Your task to perform on an android device: Open the phone app and click the voicemail tab. Image 0: 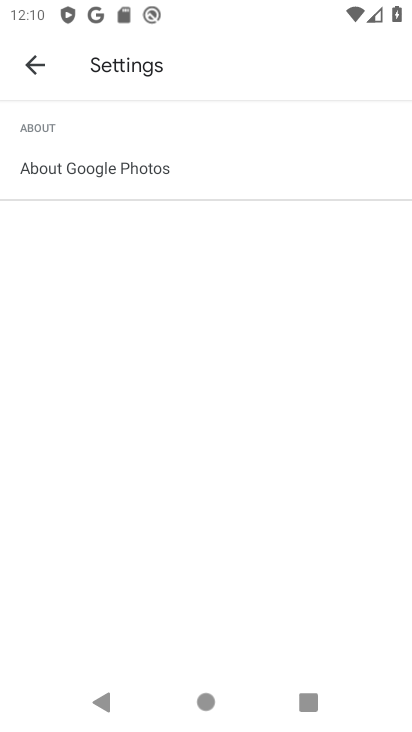
Step 0: click (31, 67)
Your task to perform on an android device: Open the phone app and click the voicemail tab. Image 1: 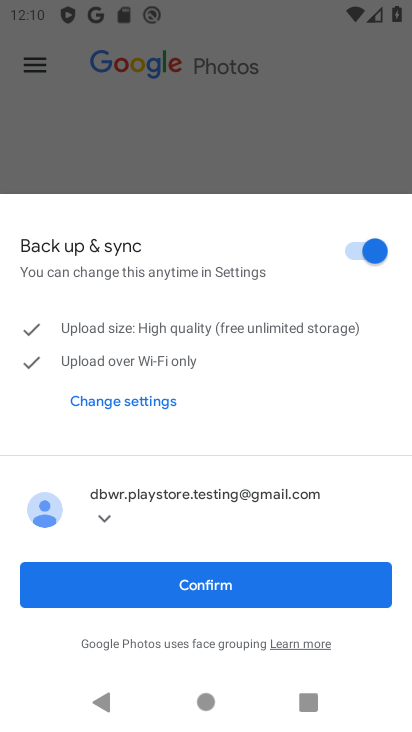
Step 1: press back button
Your task to perform on an android device: Open the phone app and click the voicemail tab. Image 2: 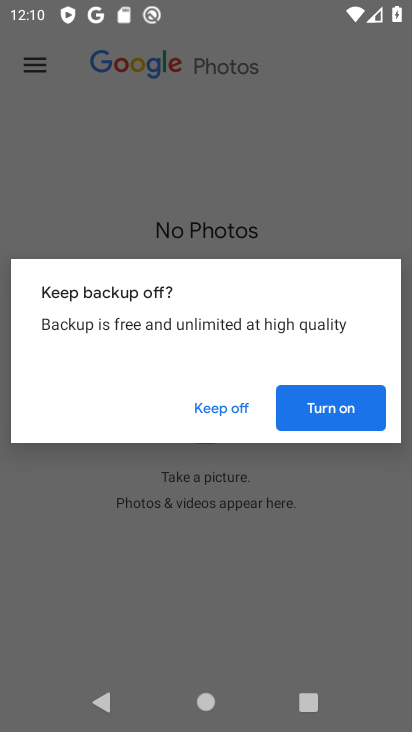
Step 2: click (199, 412)
Your task to perform on an android device: Open the phone app and click the voicemail tab. Image 3: 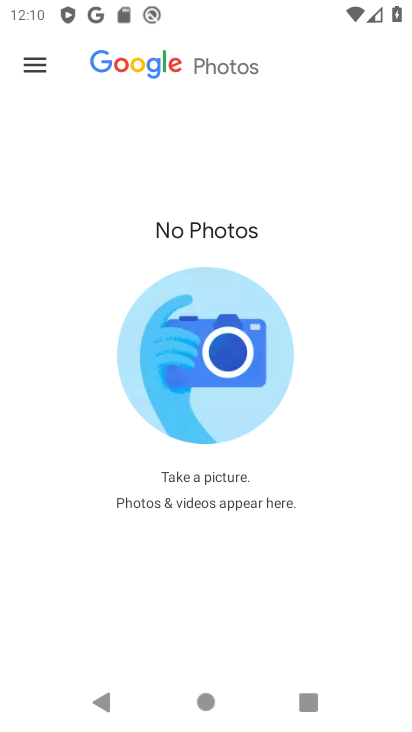
Step 3: press back button
Your task to perform on an android device: Open the phone app and click the voicemail tab. Image 4: 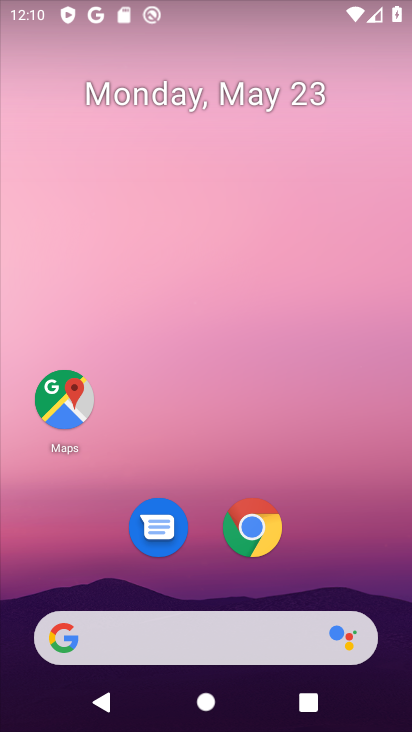
Step 4: drag from (343, 706) to (124, 111)
Your task to perform on an android device: Open the phone app and click the voicemail tab. Image 5: 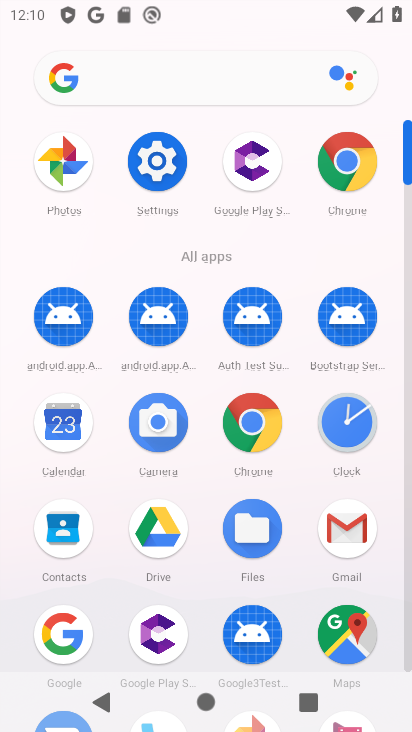
Step 5: drag from (247, 681) to (200, 327)
Your task to perform on an android device: Open the phone app and click the voicemail tab. Image 6: 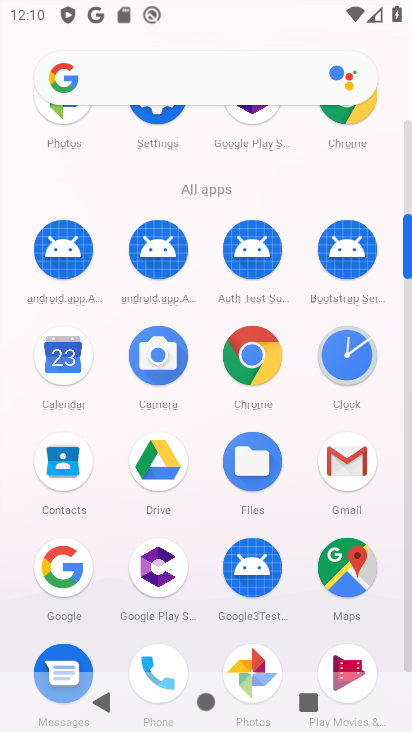
Step 6: drag from (239, 558) to (209, 229)
Your task to perform on an android device: Open the phone app and click the voicemail tab. Image 7: 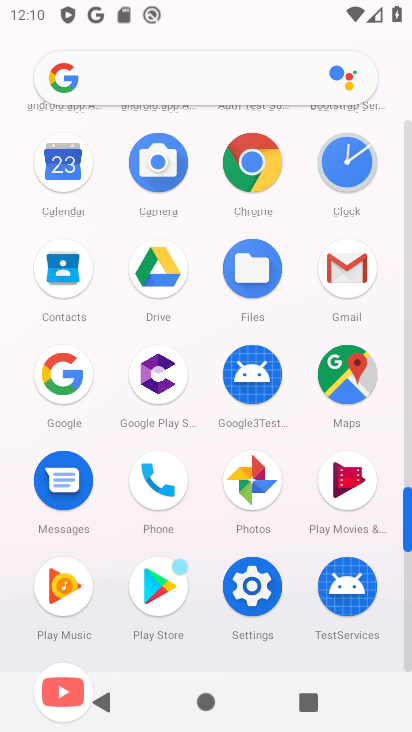
Step 7: drag from (199, 468) to (199, 182)
Your task to perform on an android device: Open the phone app and click the voicemail tab. Image 8: 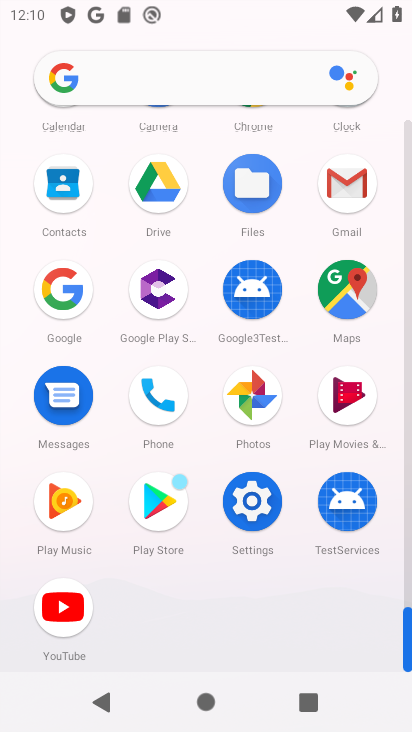
Step 8: click (143, 392)
Your task to perform on an android device: Open the phone app and click the voicemail tab. Image 9: 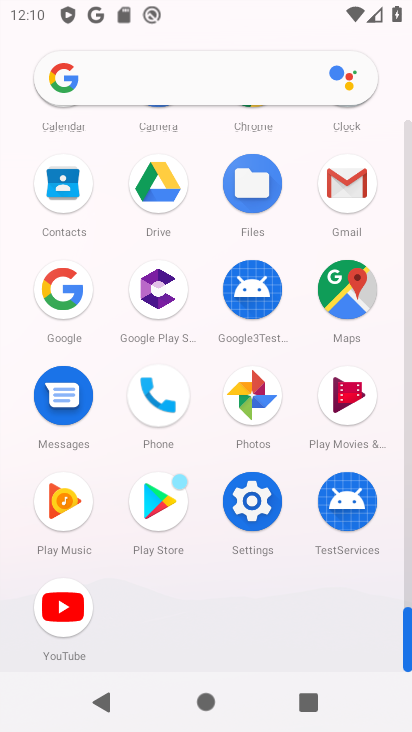
Step 9: click (163, 380)
Your task to perform on an android device: Open the phone app and click the voicemail tab. Image 10: 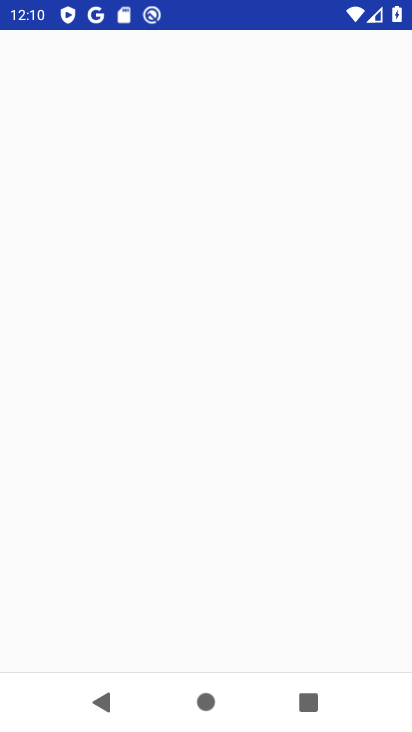
Step 10: click (165, 380)
Your task to perform on an android device: Open the phone app and click the voicemail tab. Image 11: 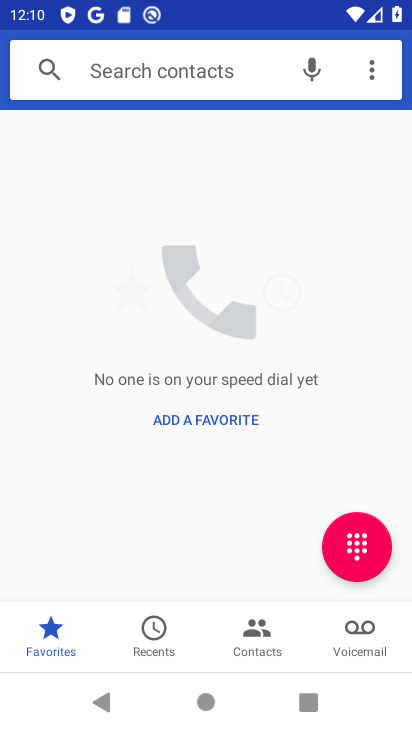
Step 11: click (359, 624)
Your task to perform on an android device: Open the phone app and click the voicemail tab. Image 12: 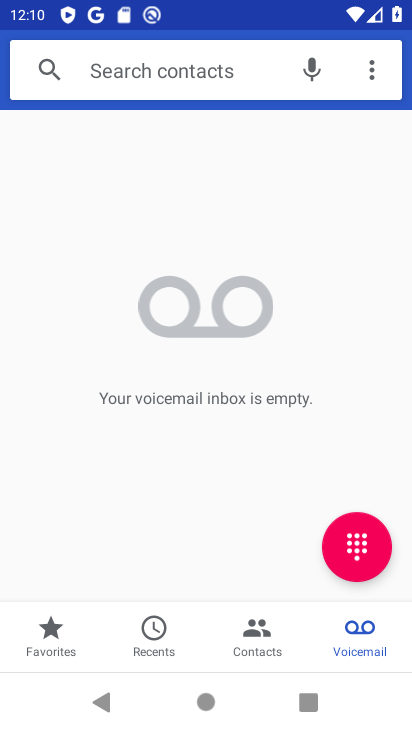
Step 12: click (358, 640)
Your task to perform on an android device: Open the phone app and click the voicemail tab. Image 13: 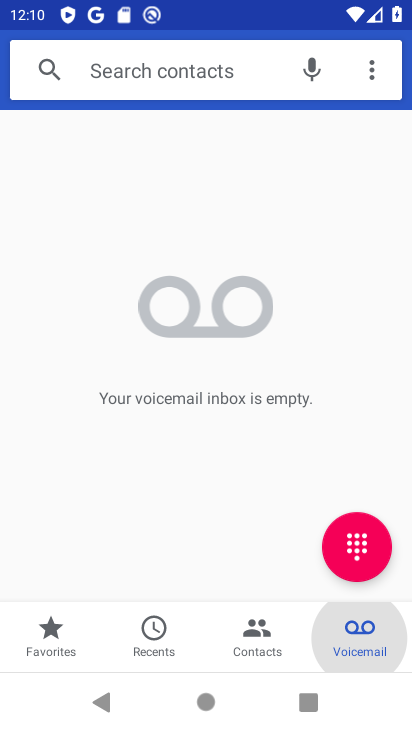
Step 13: click (358, 640)
Your task to perform on an android device: Open the phone app and click the voicemail tab. Image 14: 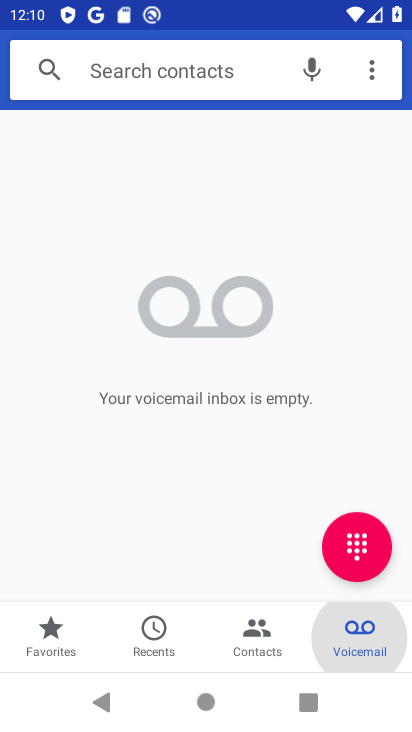
Step 14: click (358, 640)
Your task to perform on an android device: Open the phone app and click the voicemail tab. Image 15: 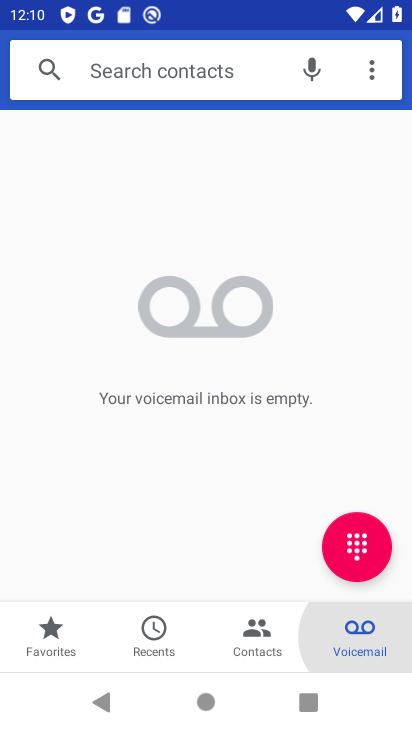
Step 15: click (358, 640)
Your task to perform on an android device: Open the phone app and click the voicemail tab. Image 16: 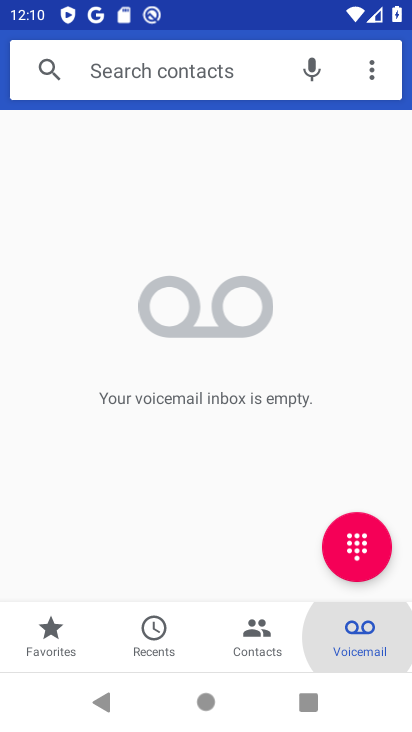
Step 16: click (359, 630)
Your task to perform on an android device: Open the phone app and click the voicemail tab. Image 17: 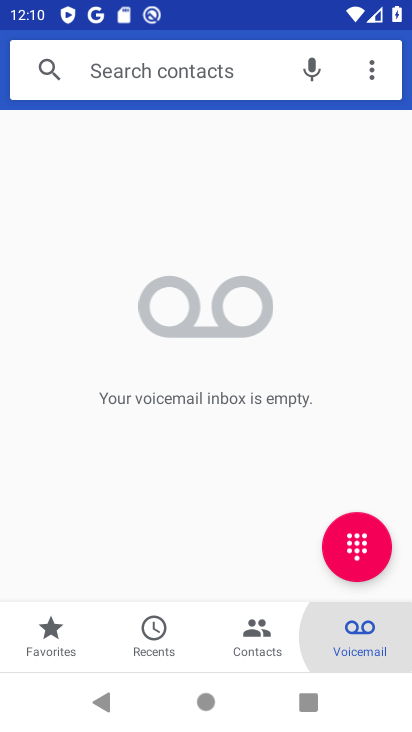
Step 17: click (359, 628)
Your task to perform on an android device: Open the phone app and click the voicemail tab. Image 18: 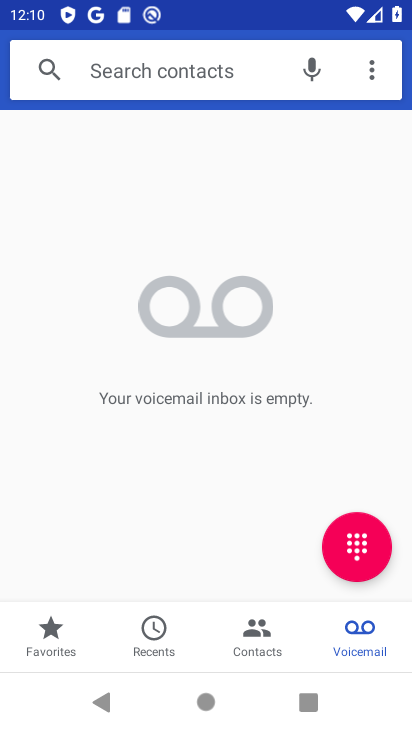
Step 18: task complete